Your task to perform on an android device: Open location settings Image 0: 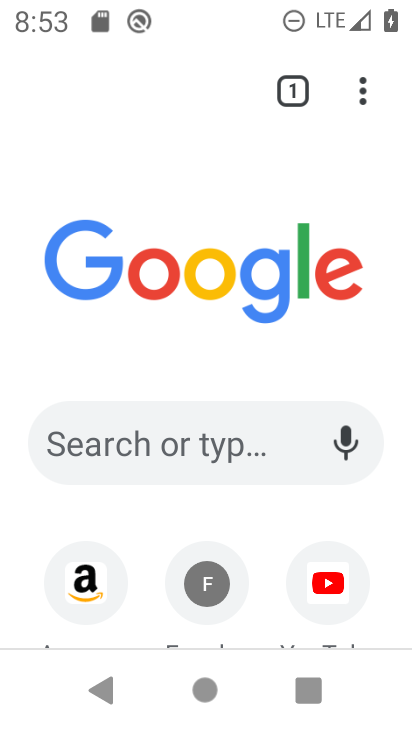
Step 0: press home button
Your task to perform on an android device: Open location settings Image 1: 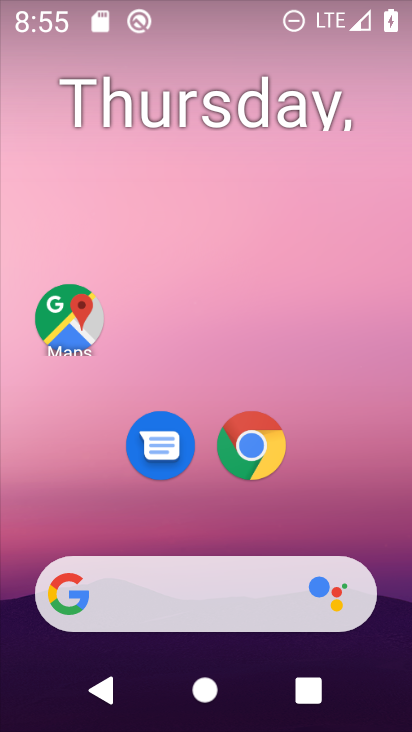
Step 1: drag from (383, 613) to (294, 74)
Your task to perform on an android device: Open location settings Image 2: 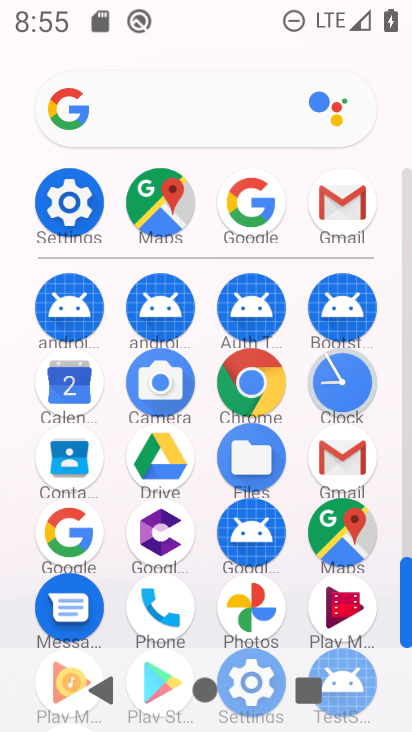
Step 2: click (74, 215)
Your task to perform on an android device: Open location settings Image 3: 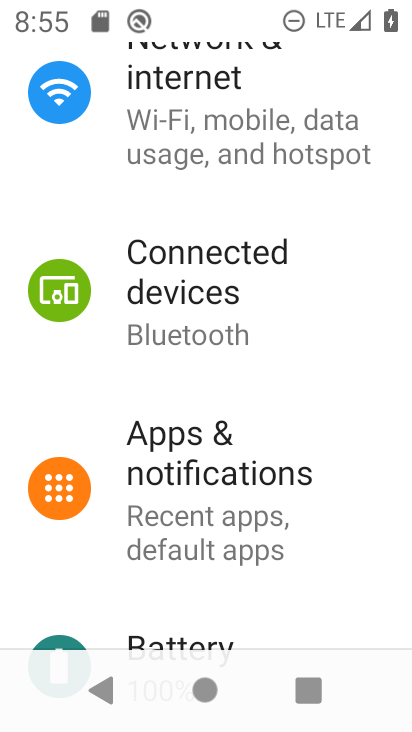
Step 3: drag from (141, 520) to (215, 130)
Your task to perform on an android device: Open location settings Image 4: 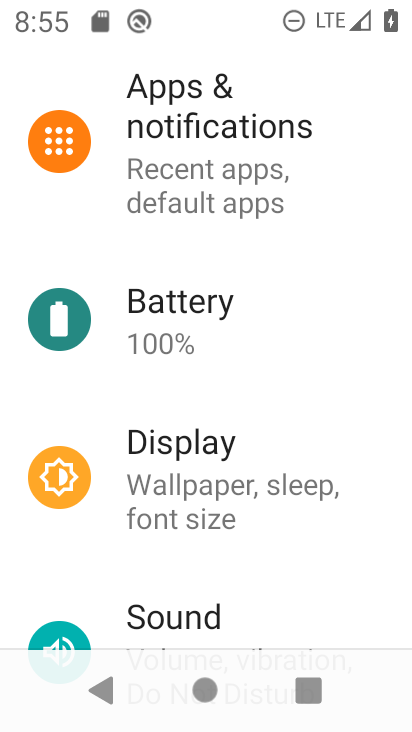
Step 4: drag from (158, 562) to (235, 97)
Your task to perform on an android device: Open location settings Image 5: 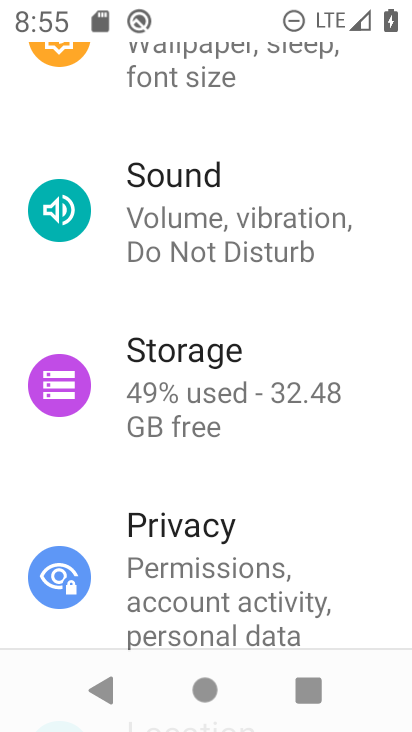
Step 5: drag from (207, 509) to (261, 96)
Your task to perform on an android device: Open location settings Image 6: 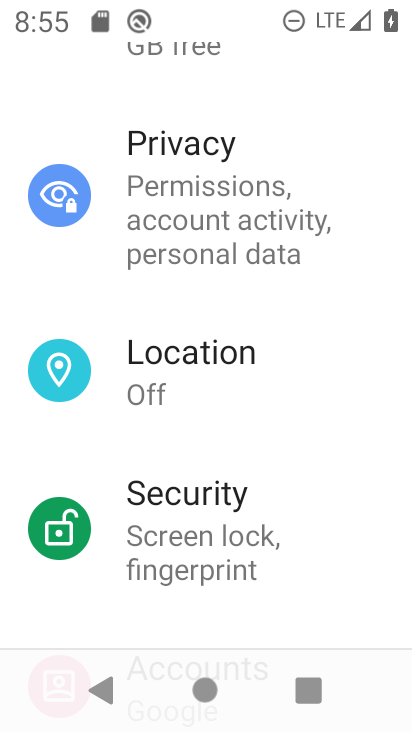
Step 6: click (147, 342)
Your task to perform on an android device: Open location settings Image 7: 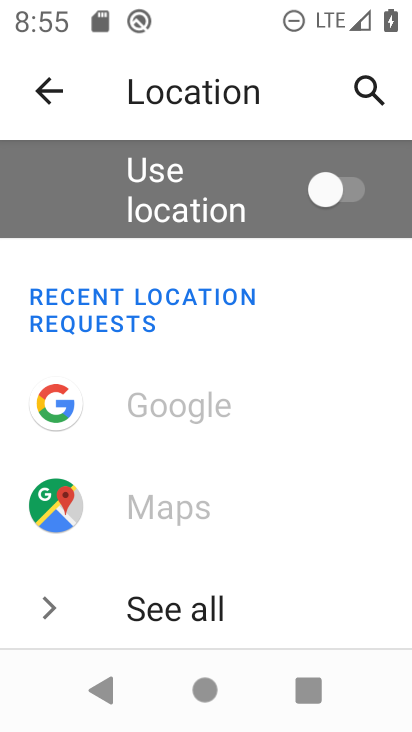
Step 7: task complete